Your task to perform on an android device: change the clock display to analog Image 0: 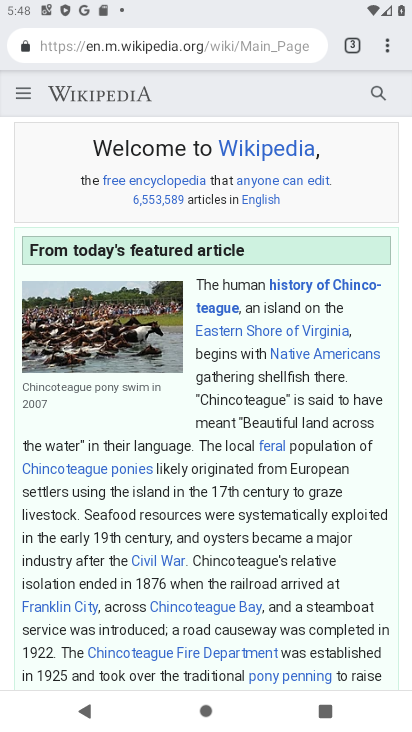
Step 0: press home button
Your task to perform on an android device: change the clock display to analog Image 1: 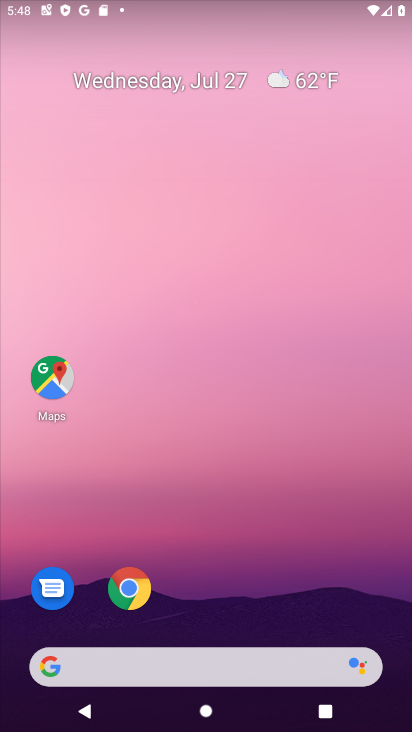
Step 1: drag from (192, 573) to (199, 177)
Your task to perform on an android device: change the clock display to analog Image 2: 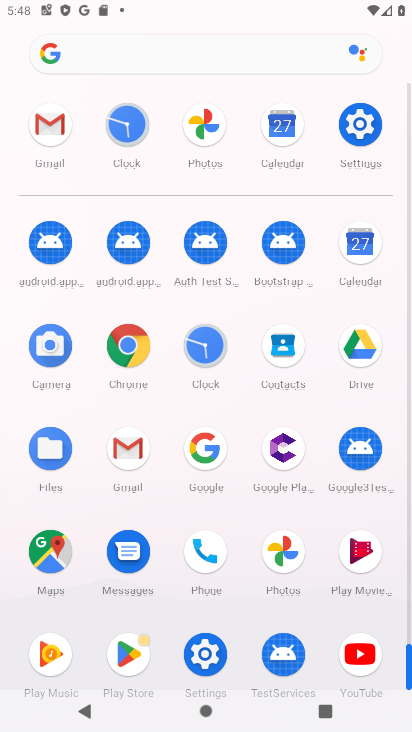
Step 2: click (216, 340)
Your task to perform on an android device: change the clock display to analog Image 3: 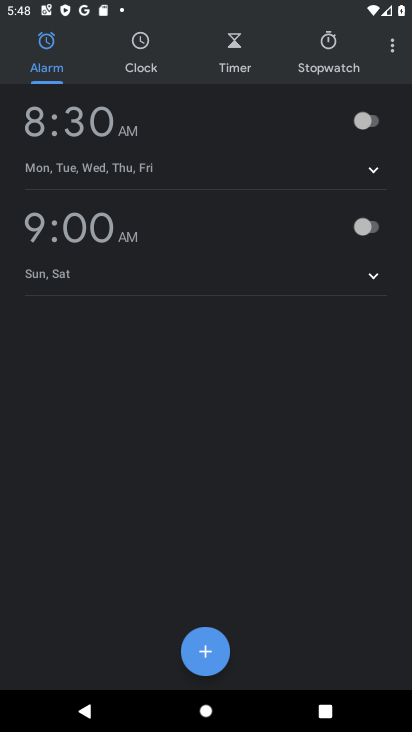
Step 3: click (393, 54)
Your task to perform on an android device: change the clock display to analog Image 4: 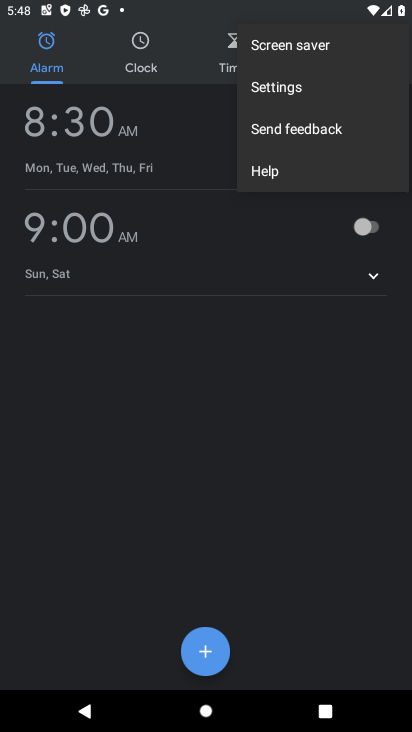
Step 4: click (285, 83)
Your task to perform on an android device: change the clock display to analog Image 5: 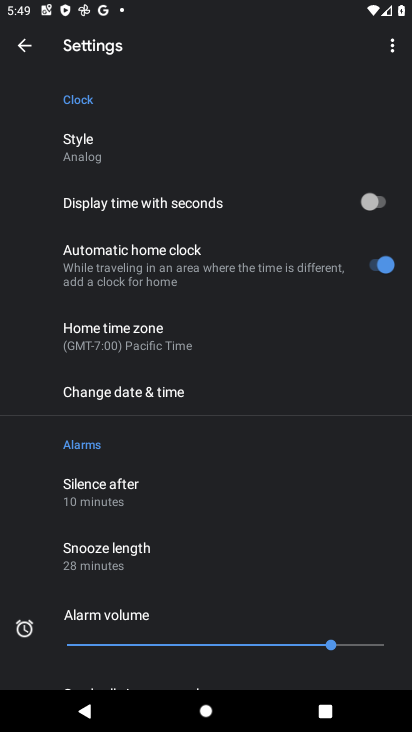
Step 5: task complete